Your task to perform on an android device: move a message to another label in the gmail app Image 0: 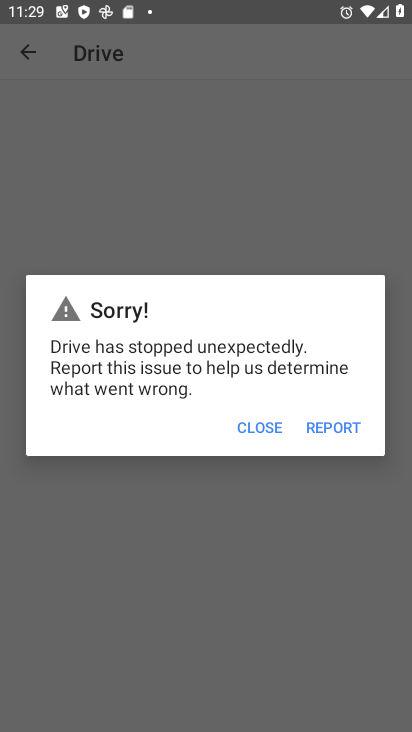
Step 0: press home button
Your task to perform on an android device: move a message to another label in the gmail app Image 1: 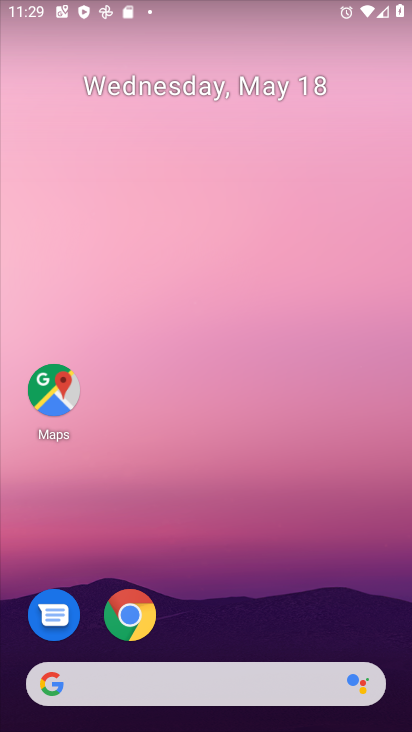
Step 1: drag from (213, 667) to (208, 320)
Your task to perform on an android device: move a message to another label in the gmail app Image 2: 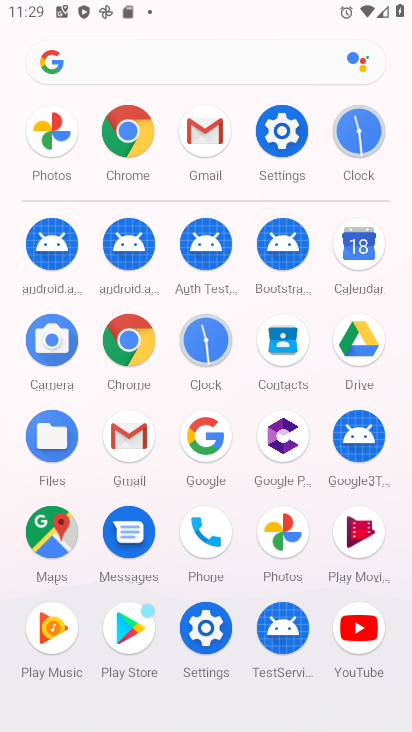
Step 2: click (196, 126)
Your task to perform on an android device: move a message to another label in the gmail app Image 3: 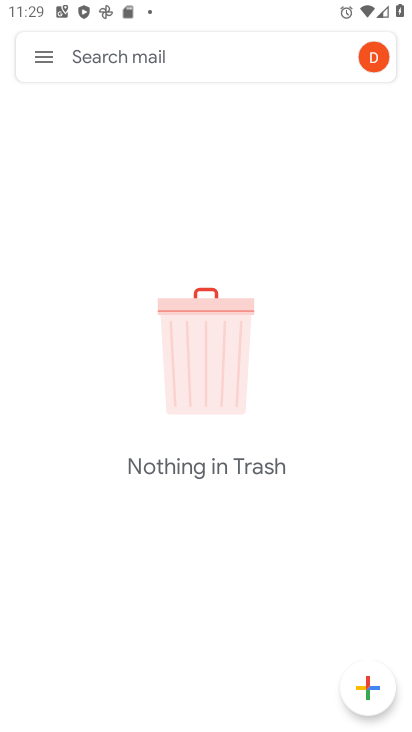
Step 3: click (36, 57)
Your task to perform on an android device: move a message to another label in the gmail app Image 4: 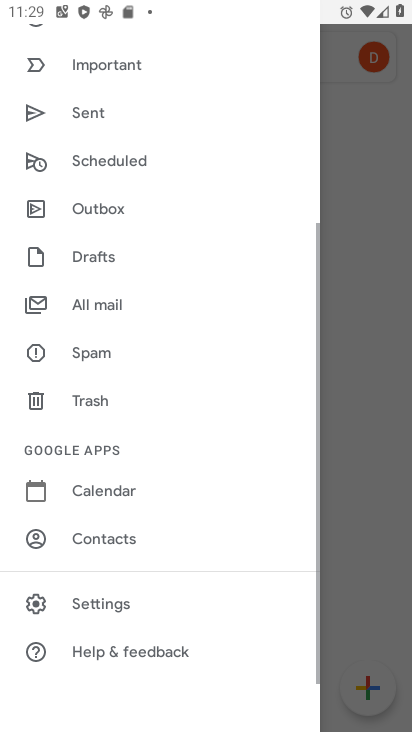
Step 4: drag from (143, 89) to (157, 631)
Your task to perform on an android device: move a message to another label in the gmail app Image 5: 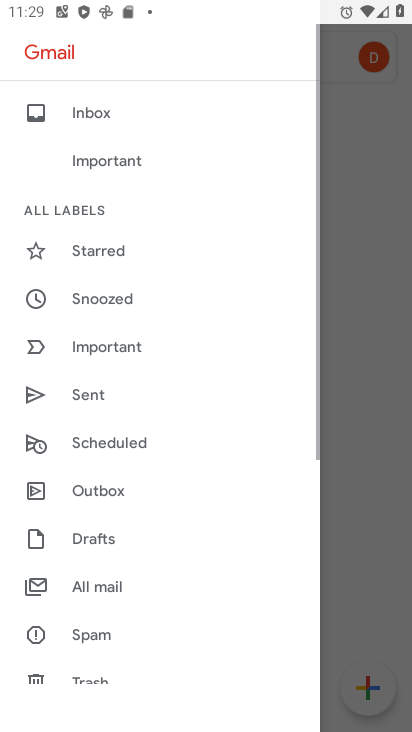
Step 5: click (112, 125)
Your task to perform on an android device: move a message to another label in the gmail app Image 6: 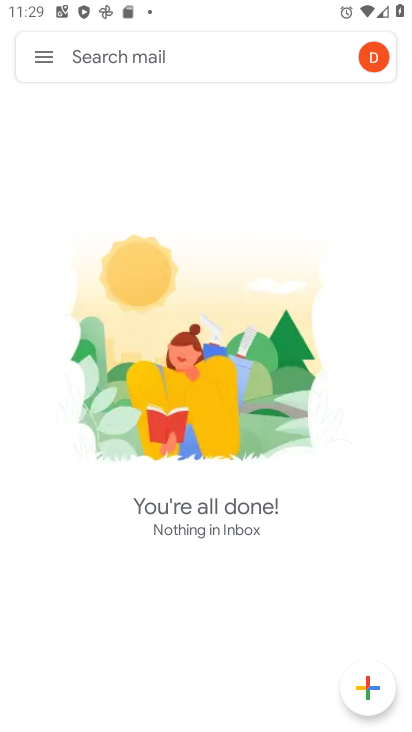
Step 6: task complete